Your task to perform on an android device: Open notification settings Image 0: 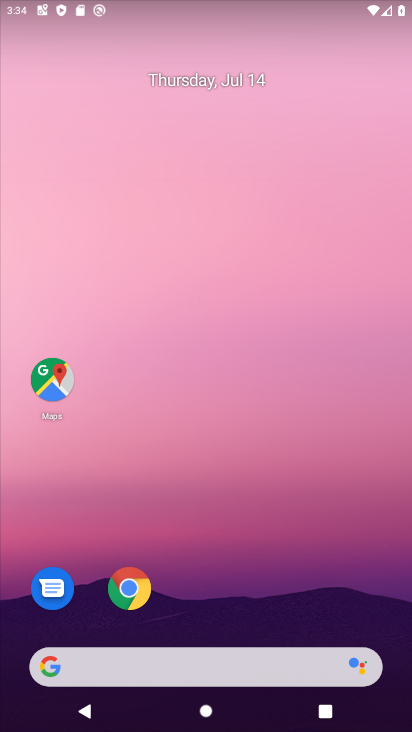
Step 0: click (296, 154)
Your task to perform on an android device: Open notification settings Image 1: 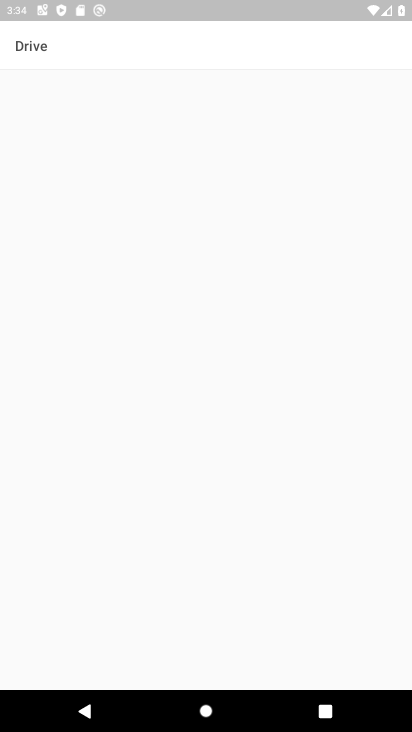
Step 1: press home button
Your task to perform on an android device: Open notification settings Image 2: 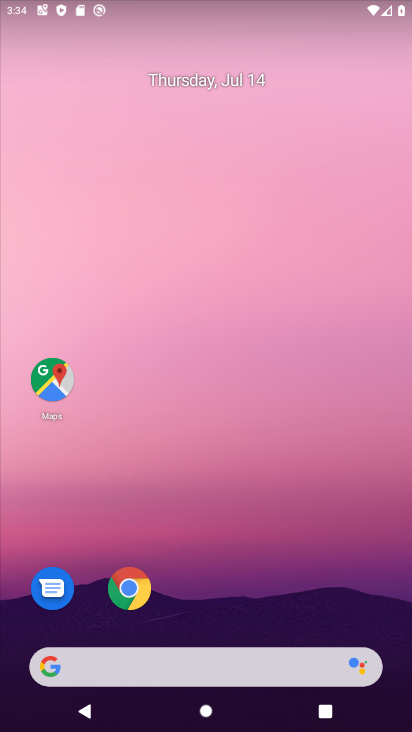
Step 2: drag from (298, 589) to (305, 78)
Your task to perform on an android device: Open notification settings Image 3: 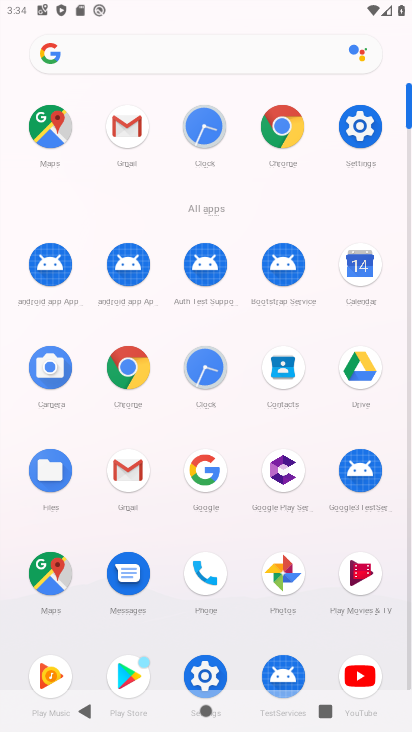
Step 3: click (366, 112)
Your task to perform on an android device: Open notification settings Image 4: 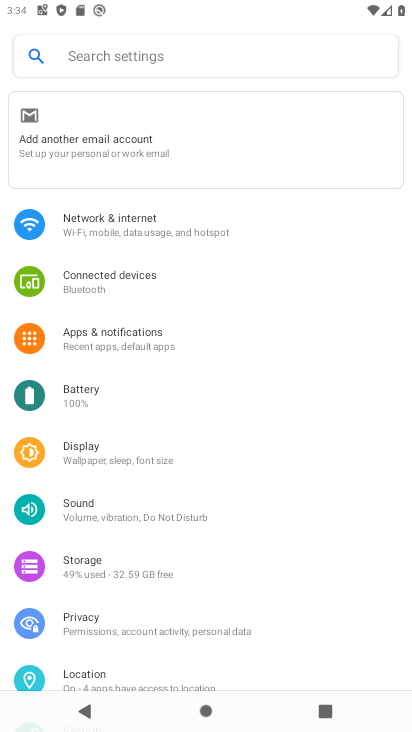
Step 4: click (125, 344)
Your task to perform on an android device: Open notification settings Image 5: 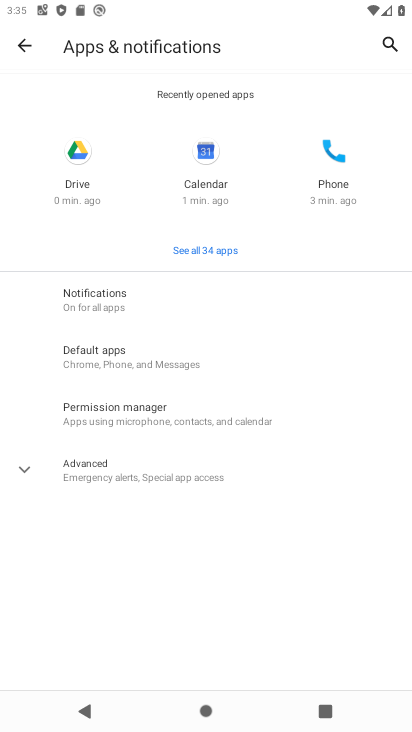
Step 5: click (92, 289)
Your task to perform on an android device: Open notification settings Image 6: 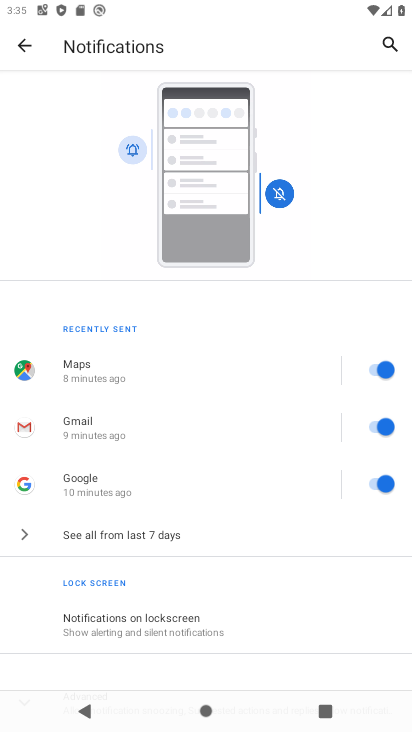
Step 6: task complete